Your task to perform on an android device: turn off airplane mode Image 0: 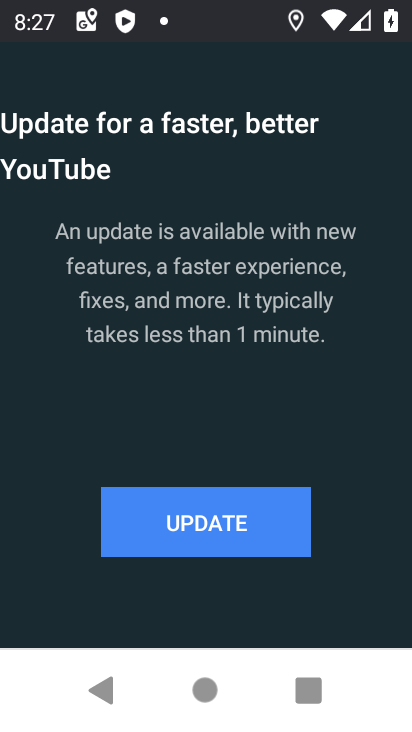
Step 0: press home button
Your task to perform on an android device: turn off airplane mode Image 1: 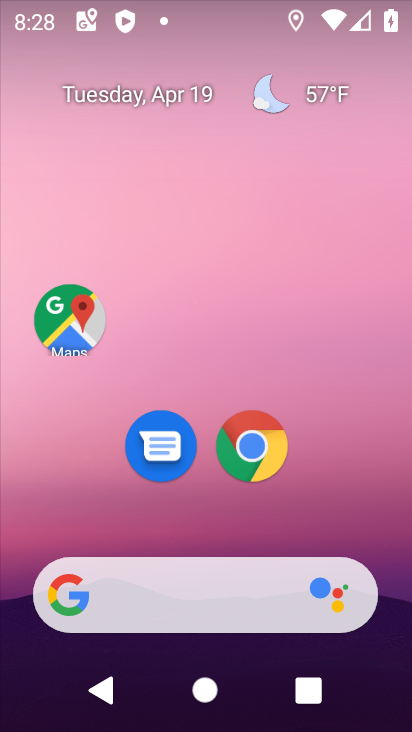
Step 1: drag from (328, 433) to (318, 128)
Your task to perform on an android device: turn off airplane mode Image 2: 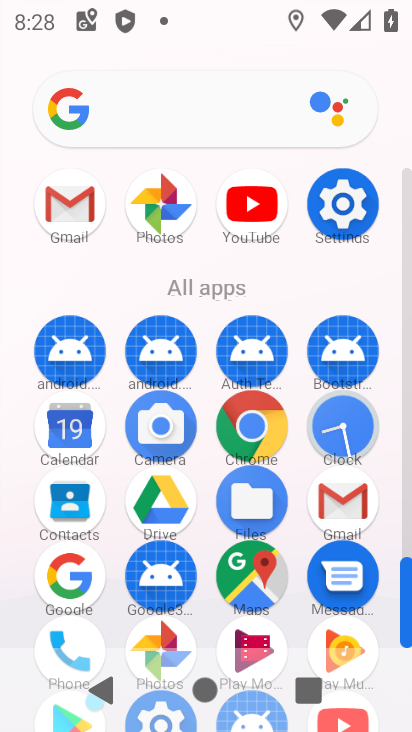
Step 2: click (337, 205)
Your task to perform on an android device: turn off airplane mode Image 3: 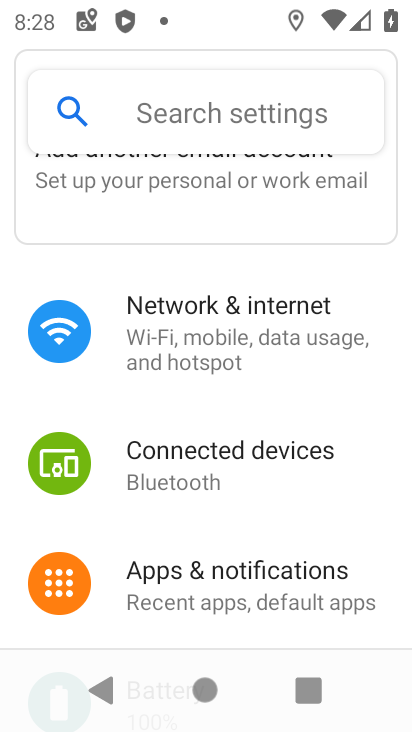
Step 3: click (200, 355)
Your task to perform on an android device: turn off airplane mode Image 4: 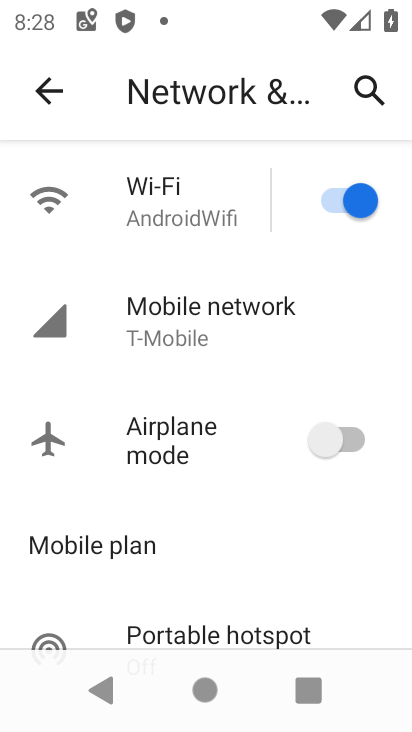
Step 4: task complete